Your task to perform on an android device: Check the weather Image 0: 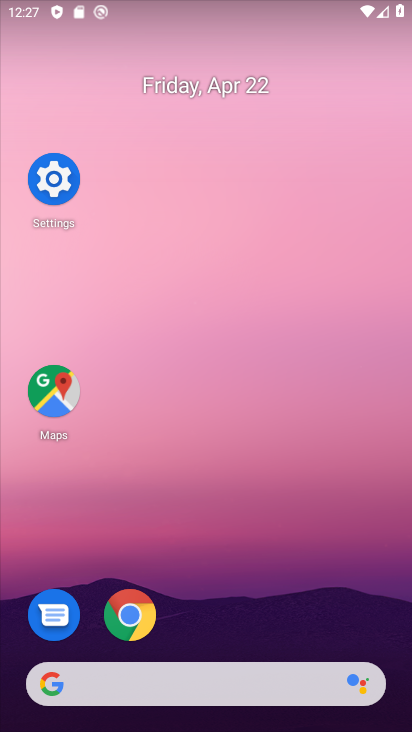
Step 0: drag from (222, 638) to (209, 142)
Your task to perform on an android device: Check the weather Image 1: 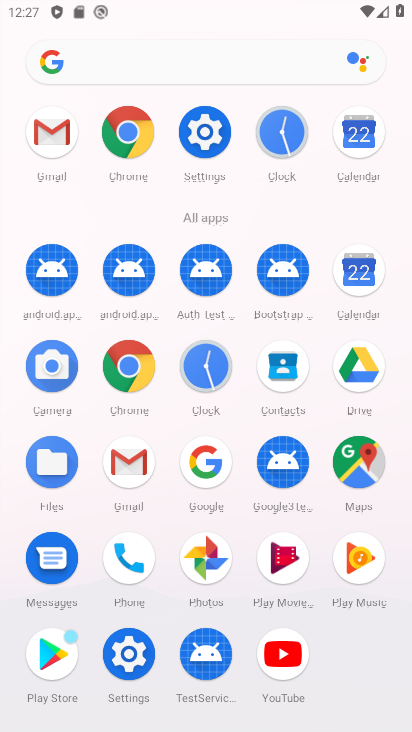
Step 1: drag from (191, 465) to (144, 231)
Your task to perform on an android device: Check the weather Image 2: 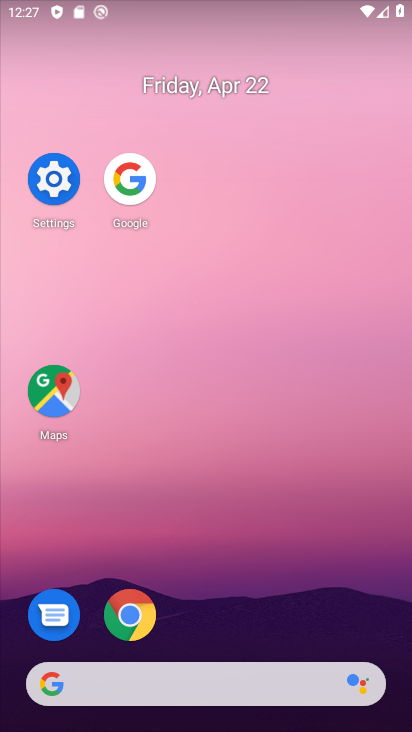
Step 2: click (131, 187)
Your task to perform on an android device: Check the weather Image 3: 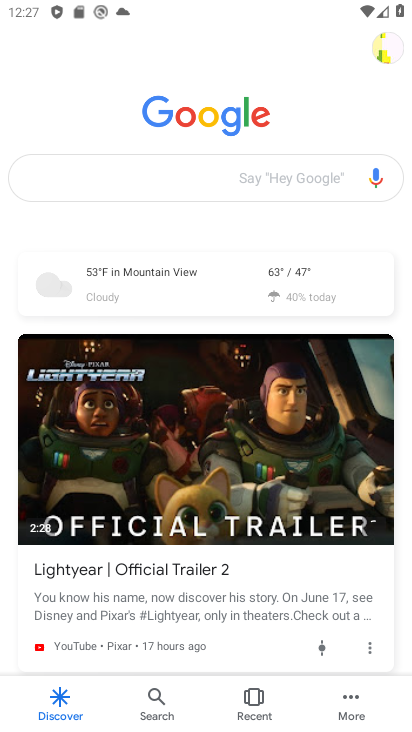
Step 3: click (142, 269)
Your task to perform on an android device: Check the weather Image 4: 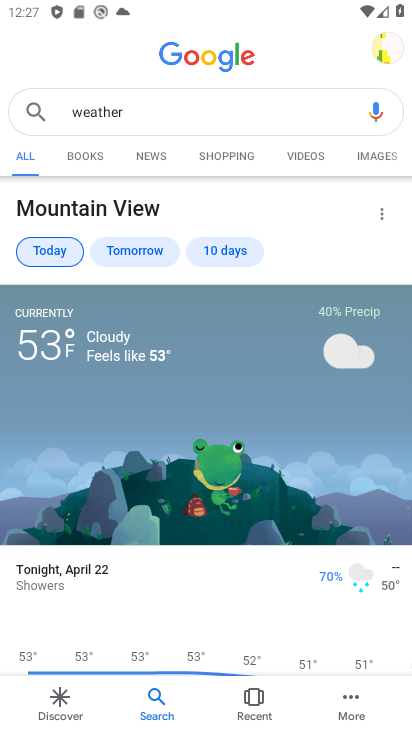
Step 4: task complete